Your task to perform on an android device: Find coffee shops on Maps Image 0: 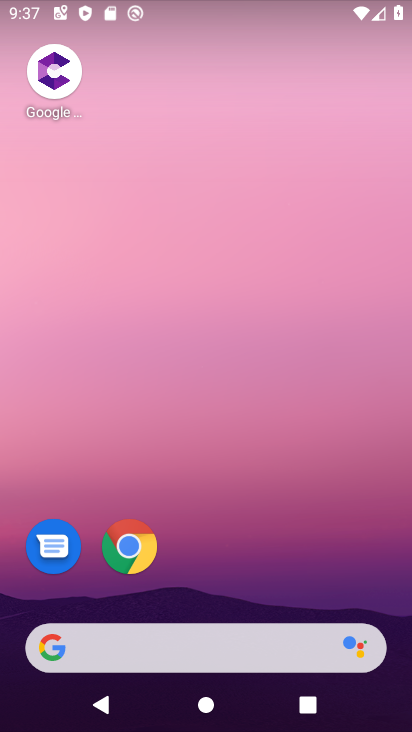
Step 0: drag from (221, 726) to (210, 5)
Your task to perform on an android device: Find coffee shops on Maps Image 1: 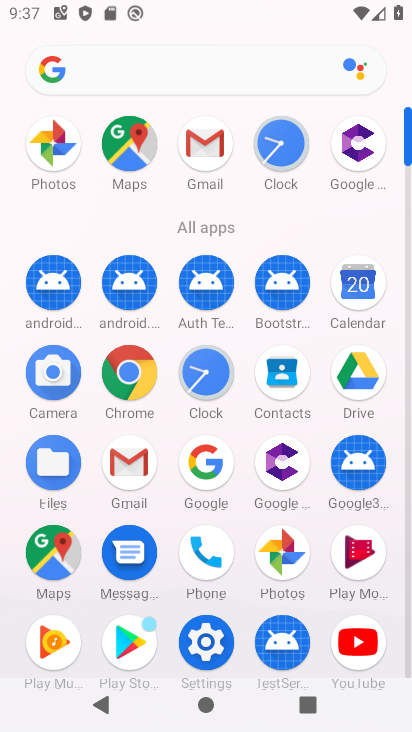
Step 1: click (132, 147)
Your task to perform on an android device: Find coffee shops on Maps Image 2: 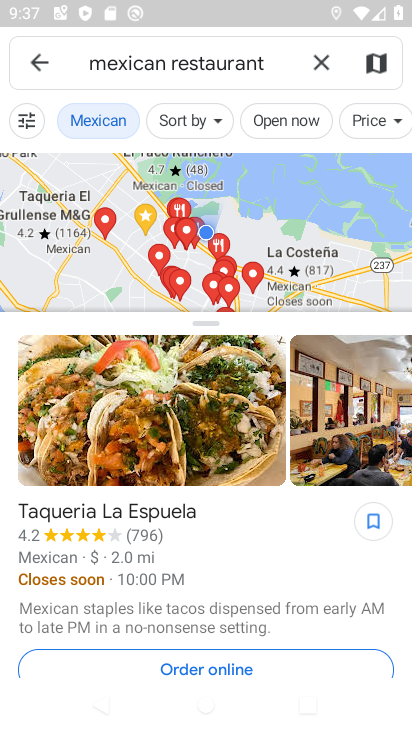
Step 2: click (322, 61)
Your task to perform on an android device: Find coffee shops on Maps Image 3: 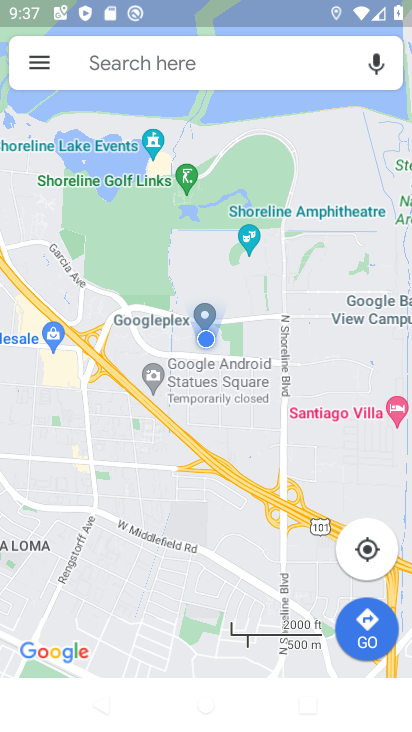
Step 3: click (161, 60)
Your task to perform on an android device: Find coffee shops on Maps Image 4: 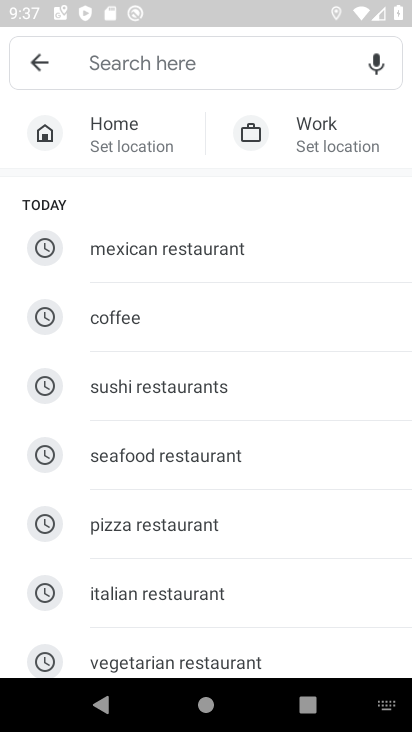
Step 4: type "coffee shops"
Your task to perform on an android device: Find coffee shops on Maps Image 5: 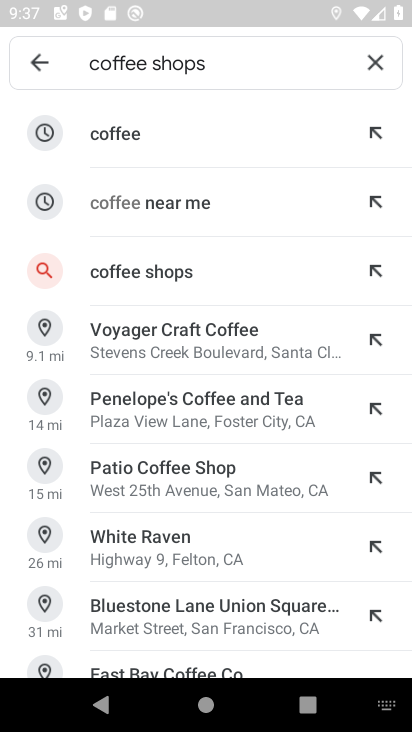
Step 5: click (156, 270)
Your task to perform on an android device: Find coffee shops on Maps Image 6: 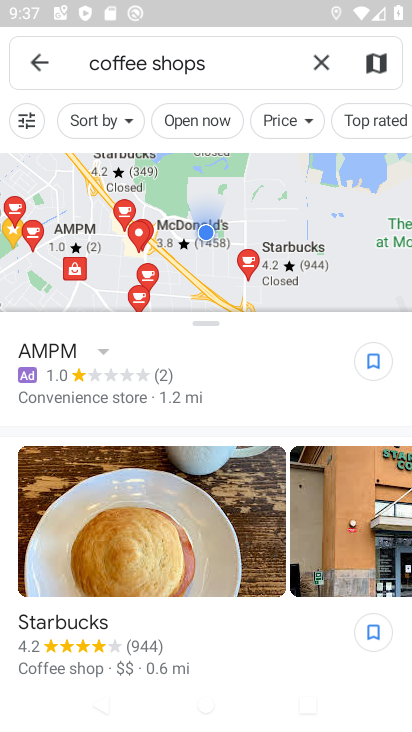
Step 6: task complete